Your task to perform on an android device: see tabs open on other devices in the chrome app Image 0: 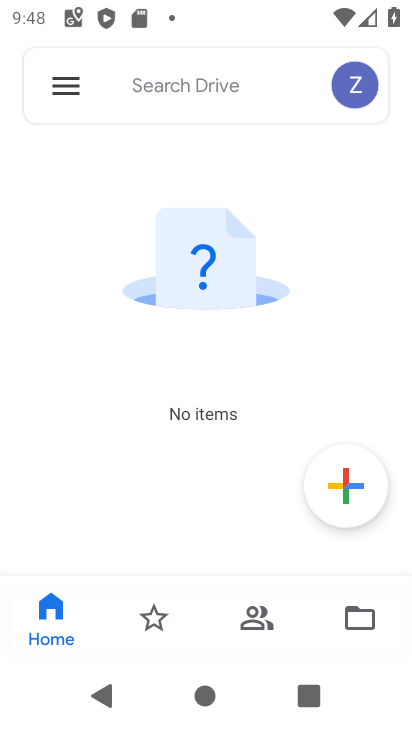
Step 0: press home button
Your task to perform on an android device: see tabs open on other devices in the chrome app Image 1: 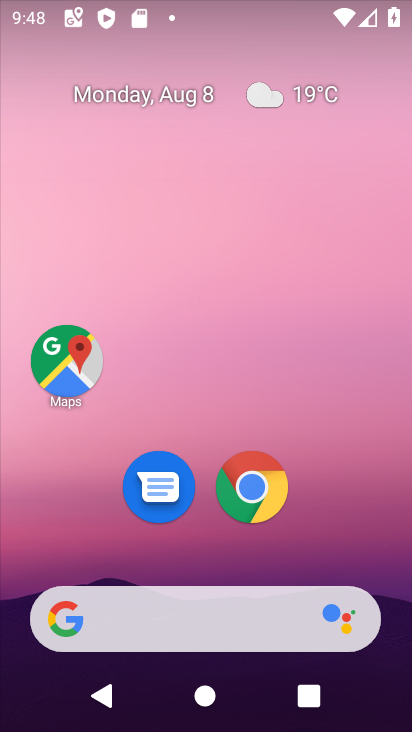
Step 1: drag from (219, 576) to (211, 146)
Your task to perform on an android device: see tabs open on other devices in the chrome app Image 2: 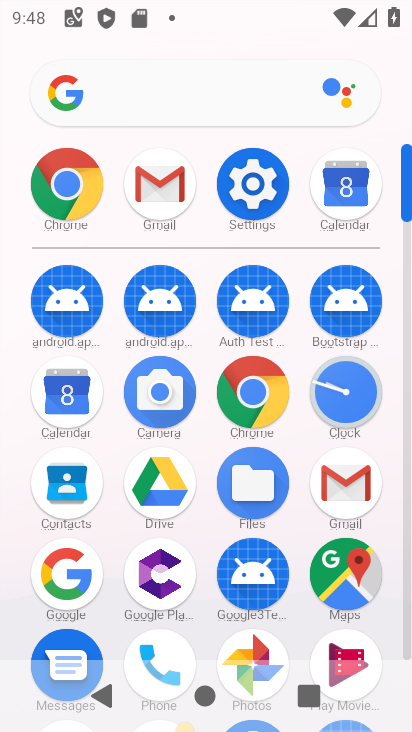
Step 2: click (256, 393)
Your task to perform on an android device: see tabs open on other devices in the chrome app Image 3: 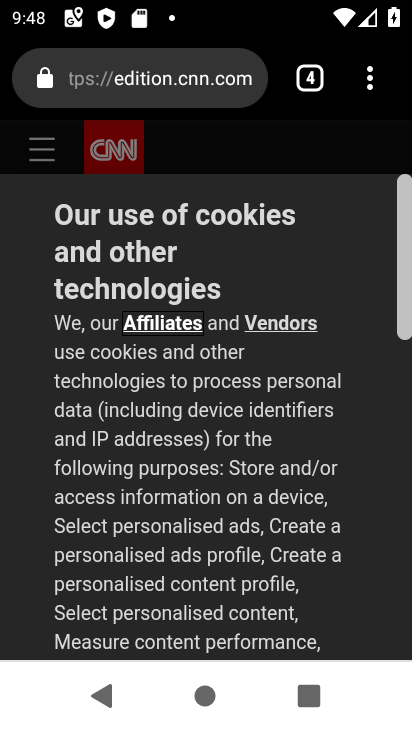
Step 3: click (371, 82)
Your task to perform on an android device: see tabs open on other devices in the chrome app Image 4: 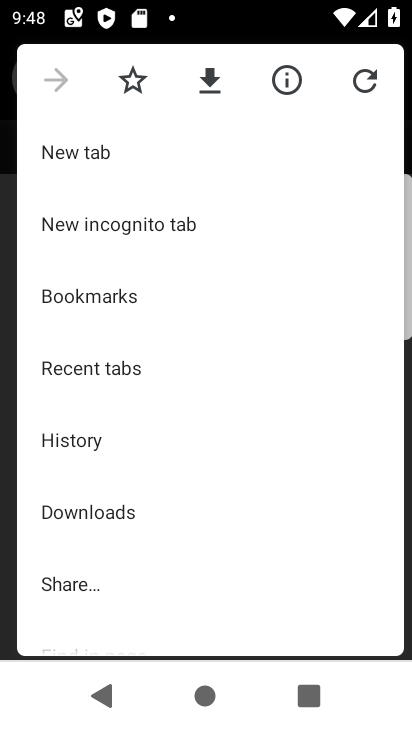
Step 4: drag from (108, 526) to (96, 360)
Your task to perform on an android device: see tabs open on other devices in the chrome app Image 5: 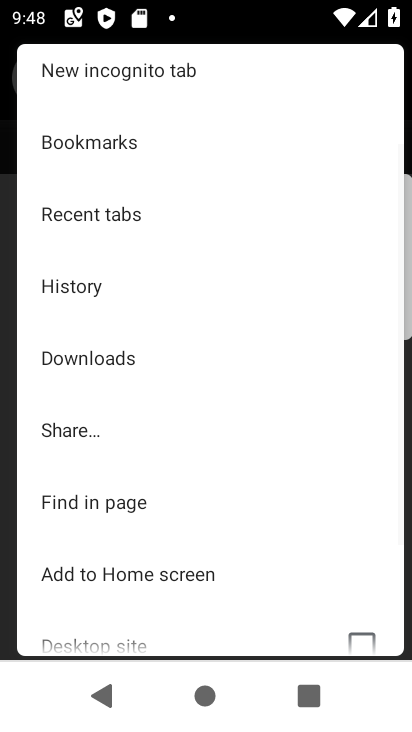
Step 5: click (118, 229)
Your task to perform on an android device: see tabs open on other devices in the chrome app Image 6: 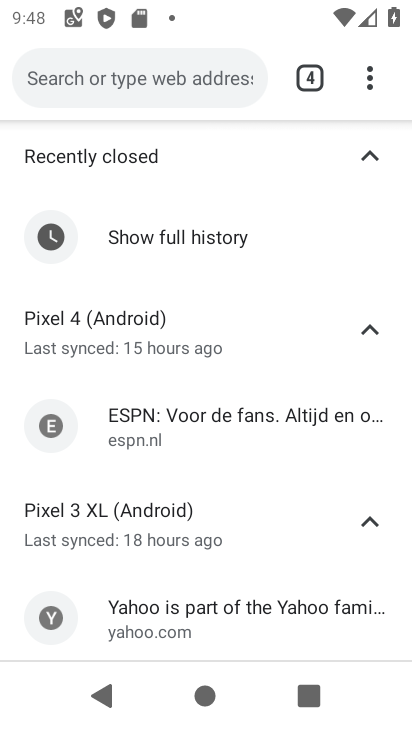
Step 6: task complete